Your task to perform on an android device: all mails in gmail Image 0: 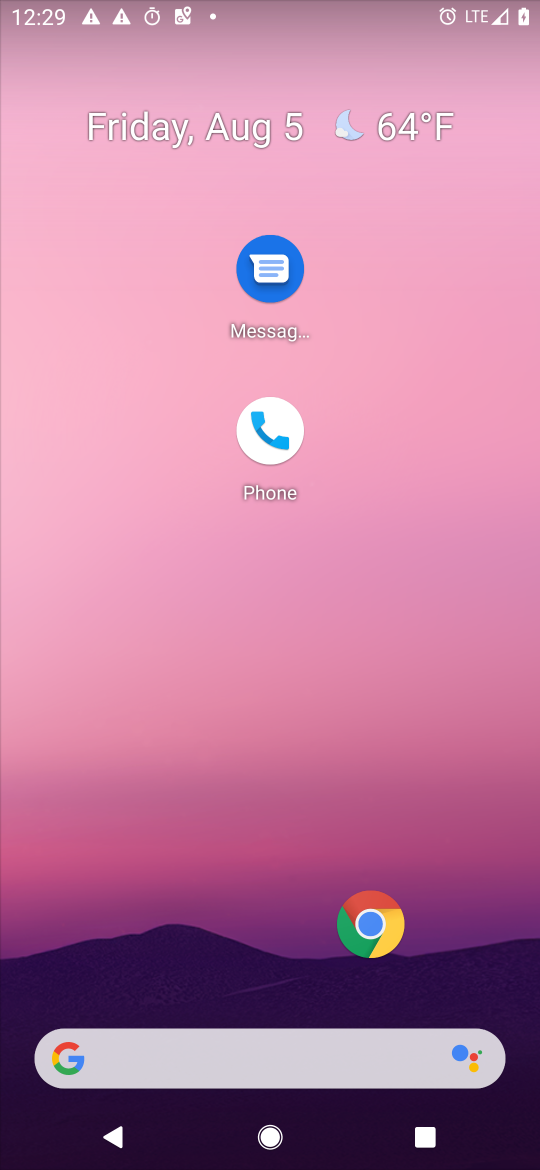
Step 0: drag from (259, 954) to (266, 392)
Your task to perform on an android device: all mails in gmail Image 1: 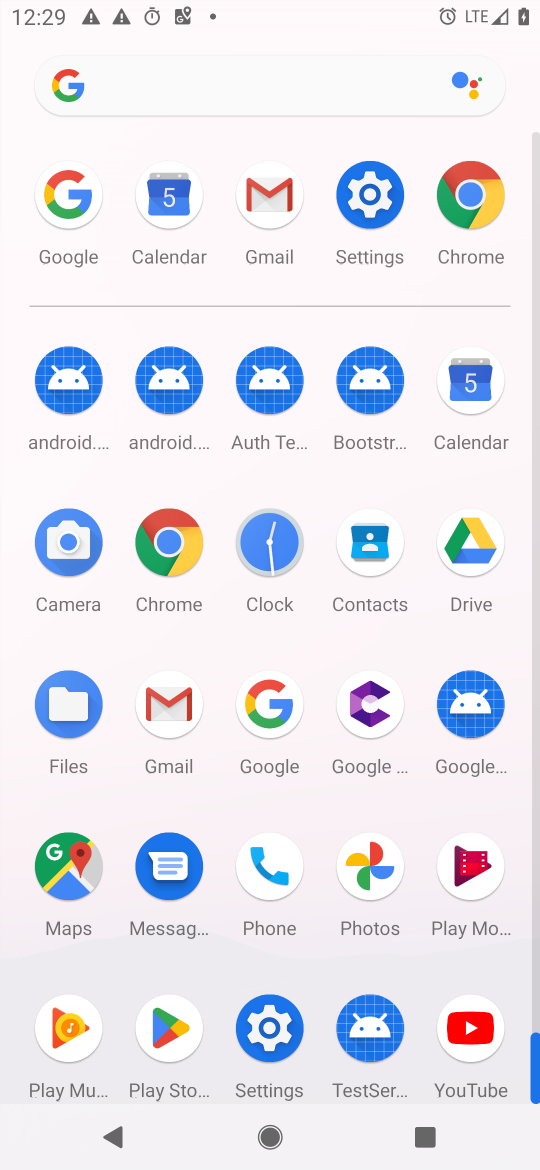
Step 1: click (170, 687)
Your task to perform on an android device: all mails in gmail Image 2: 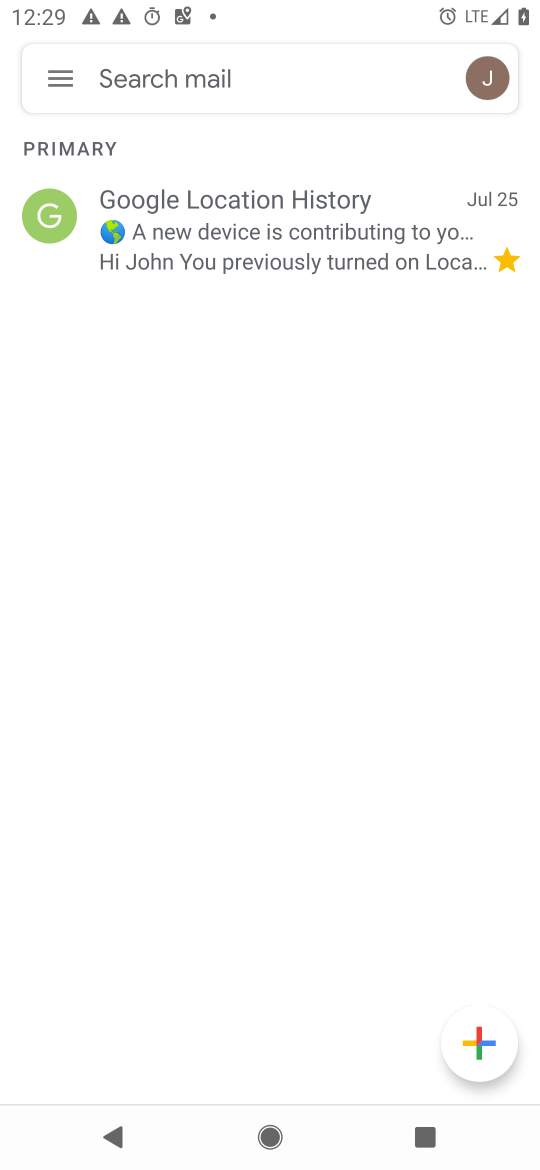
Step 2: click (31, 71)
Your task to perform on an android device: all mails in gmail Image 3: 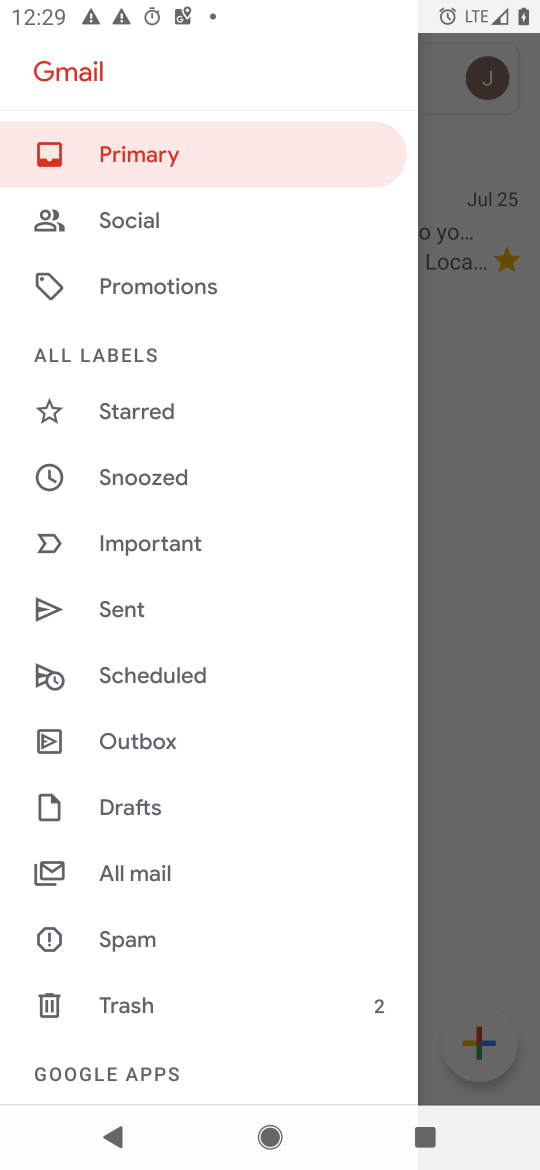
Step 3: click (127, 867)
Your task to perform on an android device: all mails in gmail Image 4: 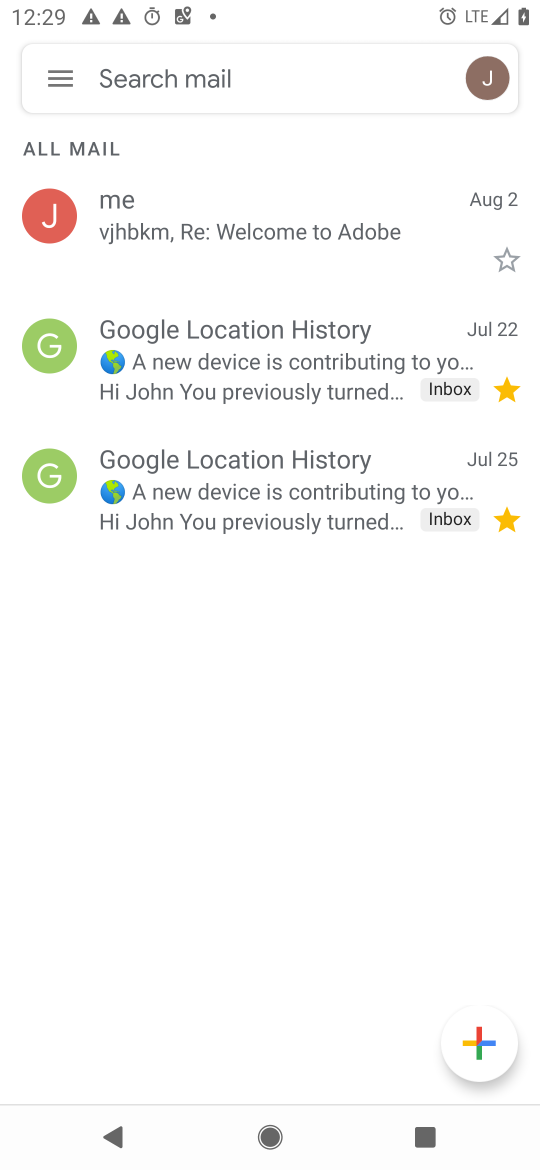
Step 4: click (71, 81)
Your task to perform on an android device: all mails in gmail Image 5: 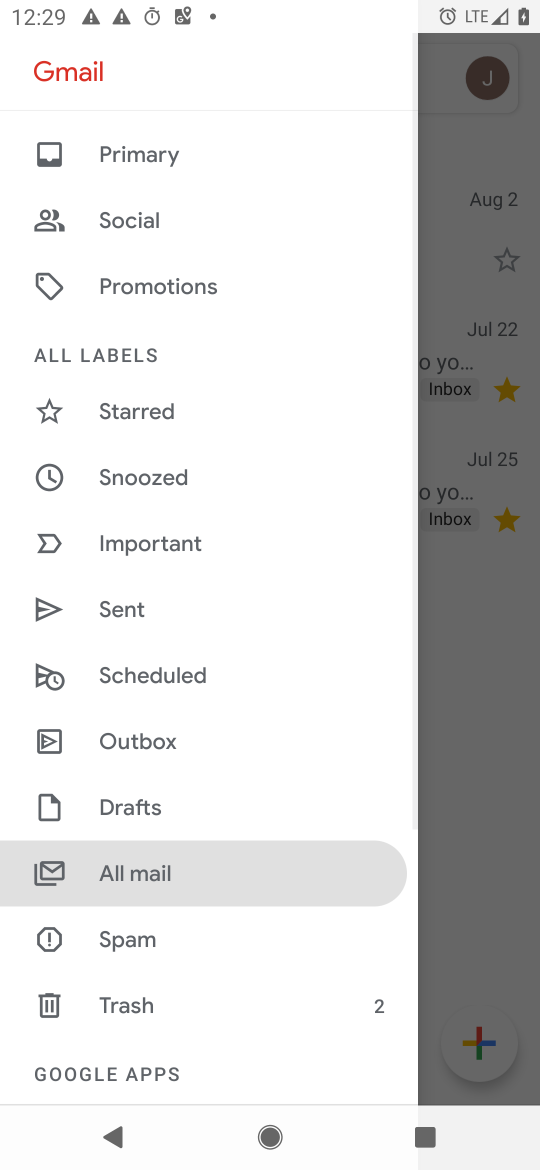
Step 5: click (119, 856)
Your task to perform on an android device: all mails in gmail Image 6: 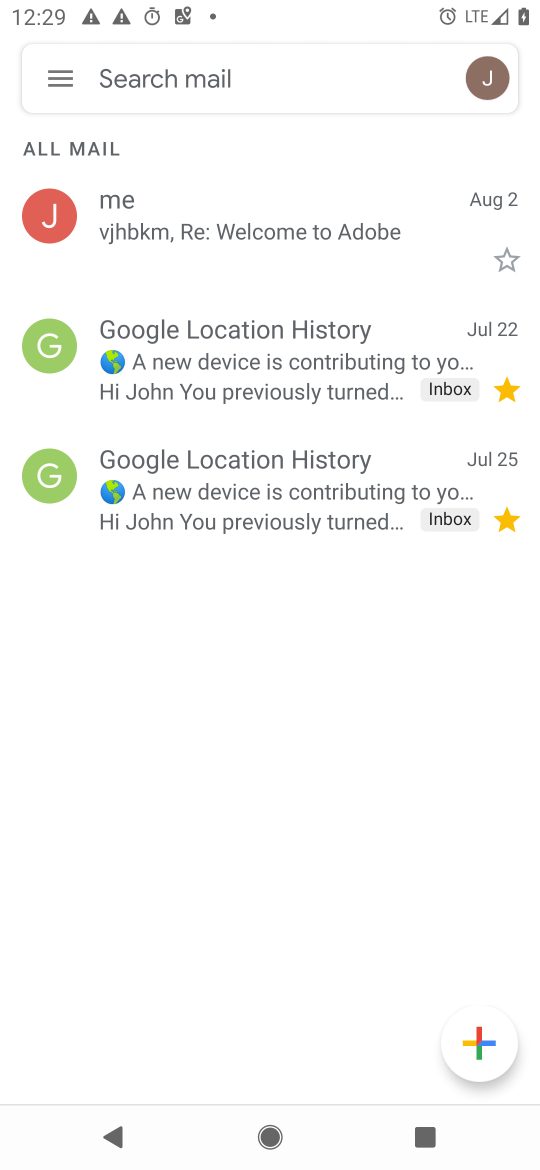
Step 6: click (414, 807)
Your task to perform on an android device: all mails in gmail Image 7: 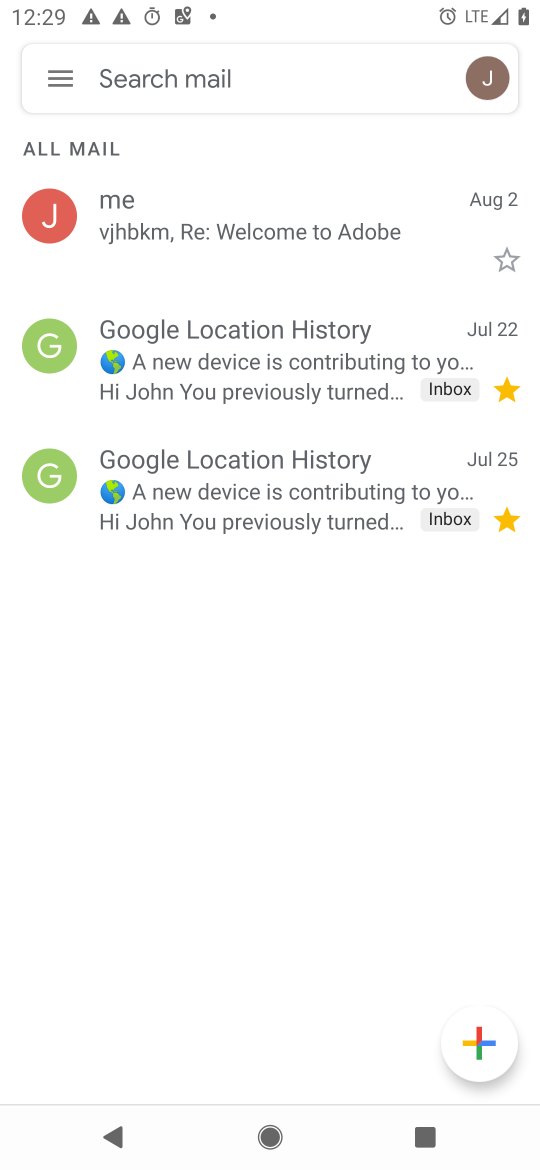
Step 7: task complete